Your task to perform on an android device: Go to accessibility settings Image 0: 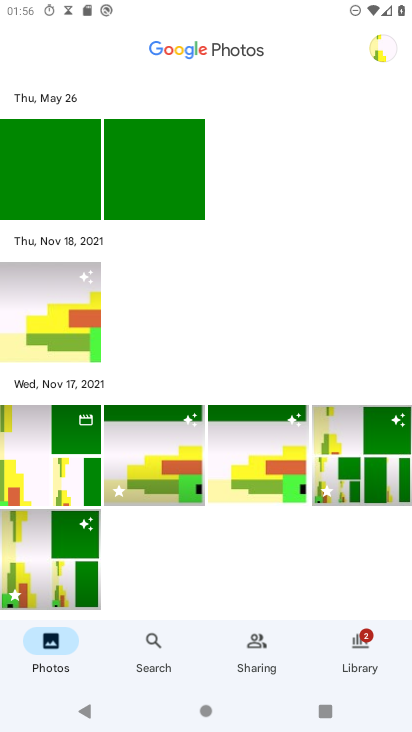
Step 0: press home button
Your task to perform on an android device: Go to accessibility settings Image 1: 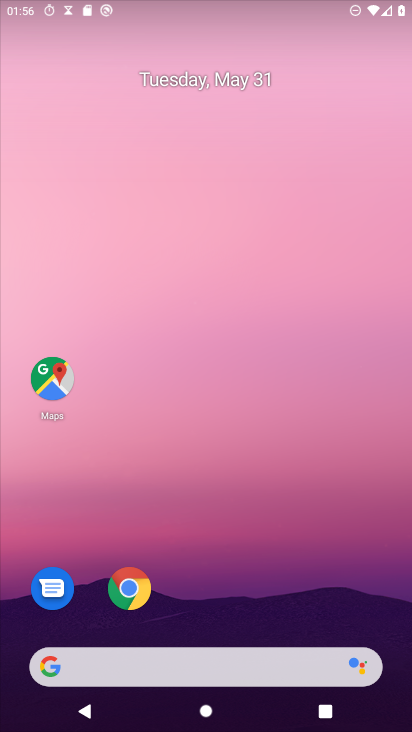
Step 1: drag from (222, 633) to (240, 3)
Your task to perform on an android device: Go to accessibility settings Image 2: 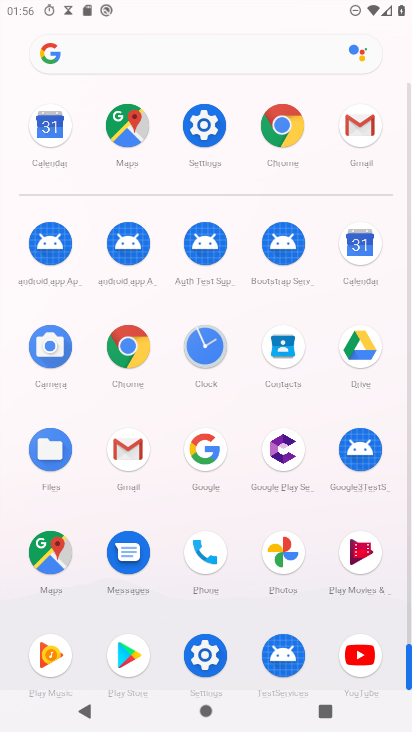
Step 2: click (198, 121)
Your task to perform on an android device: Go to accessibility settings Image 3: 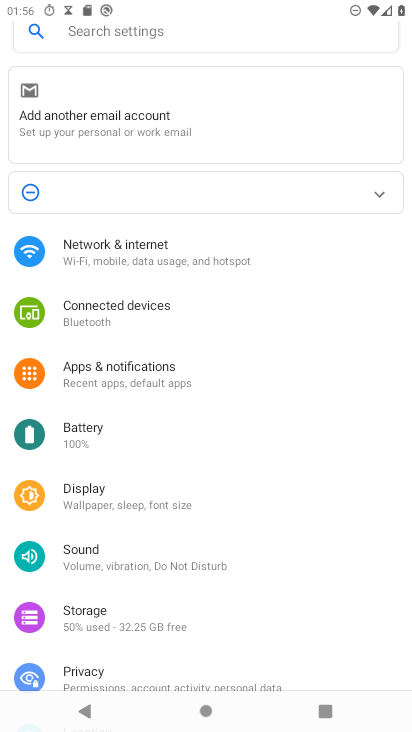
Step 3: drag from (188, 549) to (223, 127)
Your task to perform on an android device: Go to accessibility settings Image 4: 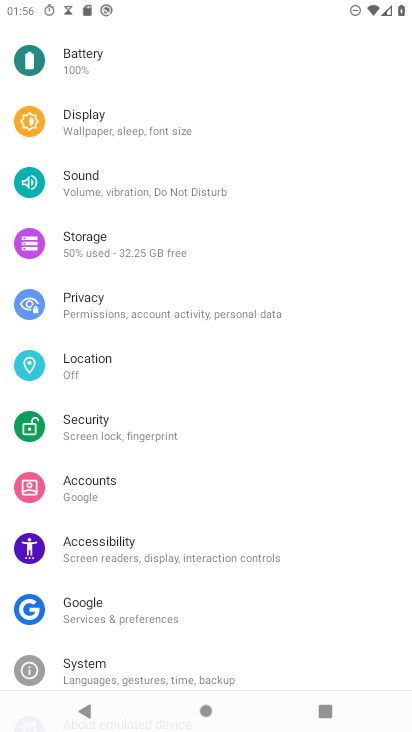
Step 4: click (175, 563)
Your task to perform on an android device: Go to accessibility settings Image 5: 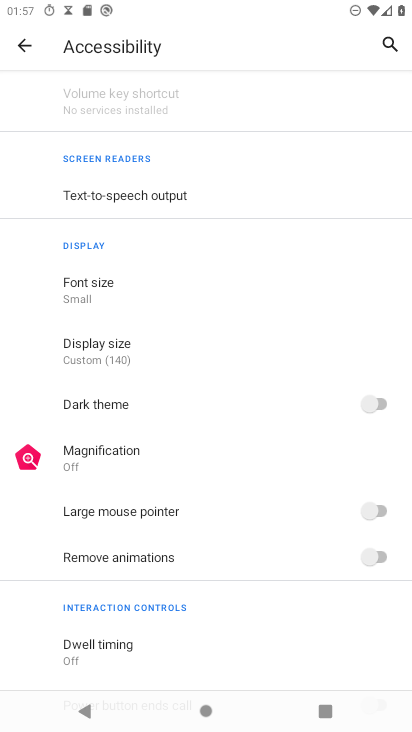
Step 5: task complete